Your task to perform on an android device: Open ESPN.com Image 0: 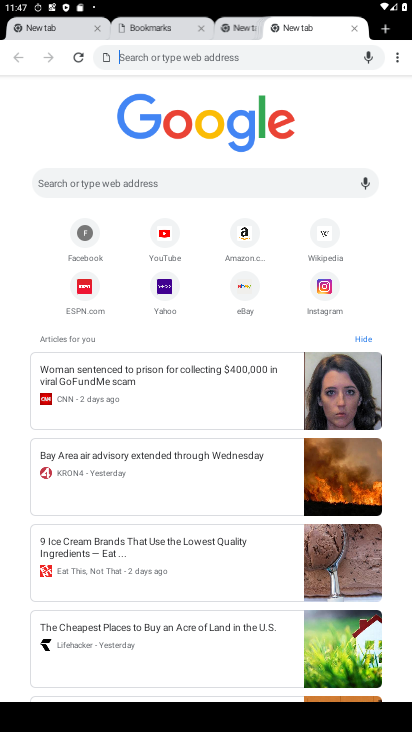
Step 0: click (74, 188)
Your task to perform on an android device: Open ESPN.com Image 1: 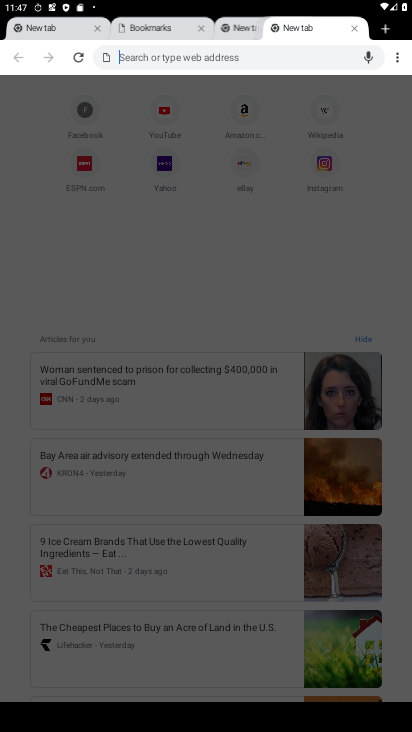
Step 1: click (238, 25)
Your task to perform on an android device: Open ESPN.com Image 2: 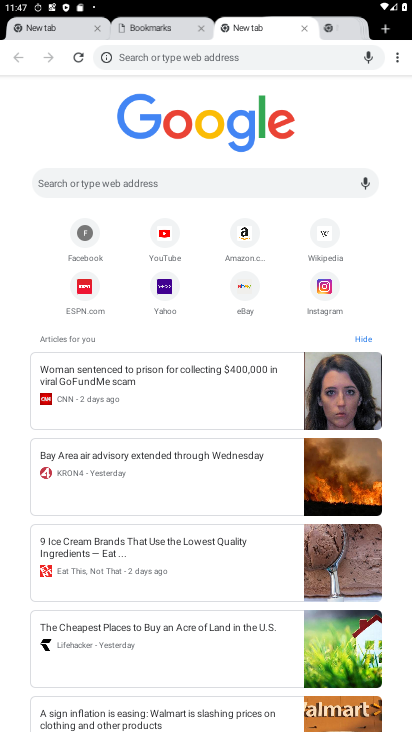
Step 2: type "ESPN.com"
Your task to perform on an android device: Open ESPN.com Image 3: 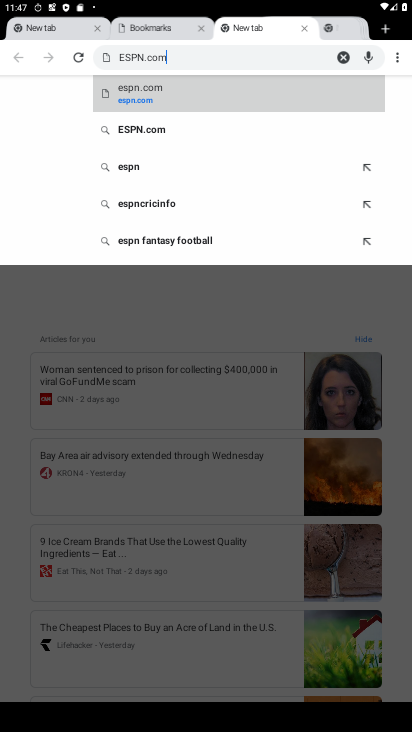
Step 3: type ""
Your task to perform on an android device: Open ESPN.com Image 4: 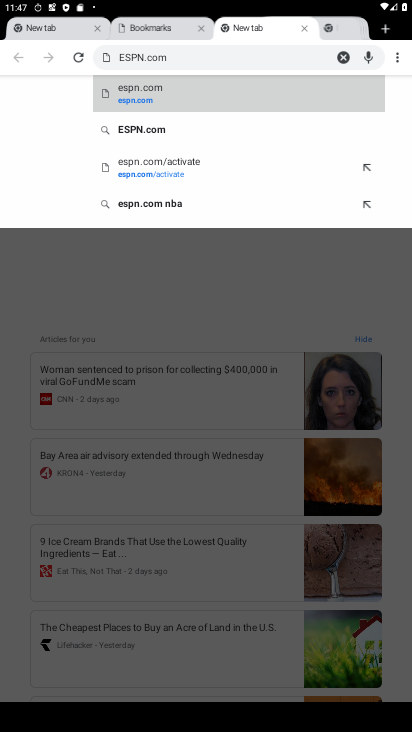
Step 4: click (132, 120)
Your task to perform on an android device: Open ESPN.com Image 5: 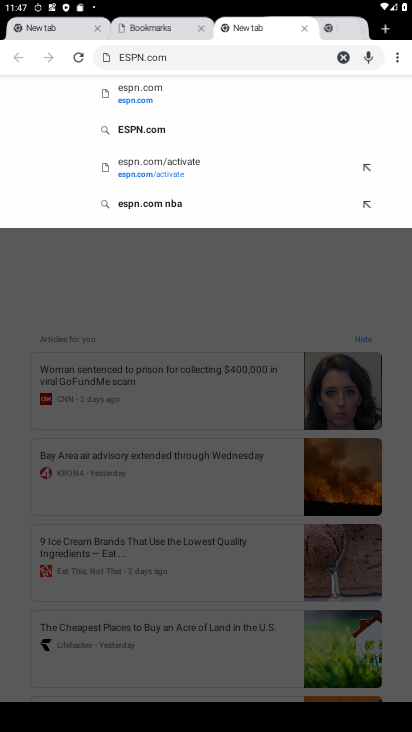
Step 5: click (143, 88)
Your task to perform on an android device: Open ESPN.com Image 6: 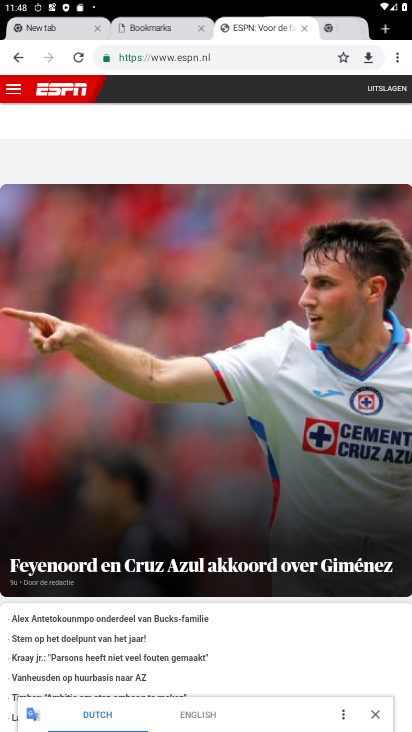
Step 6: task complete